Your task to perform on an android device: Open notification settings Image 0: 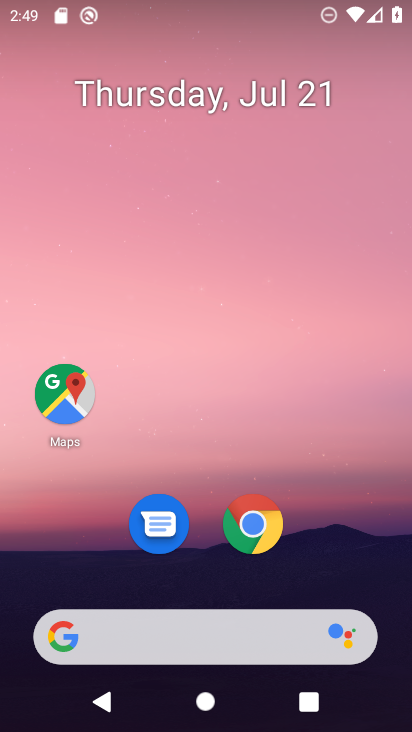
Step 0: drag from (165, 617) to (260, 8)
Your task to perform on an android device: Open notification settings Image 1: 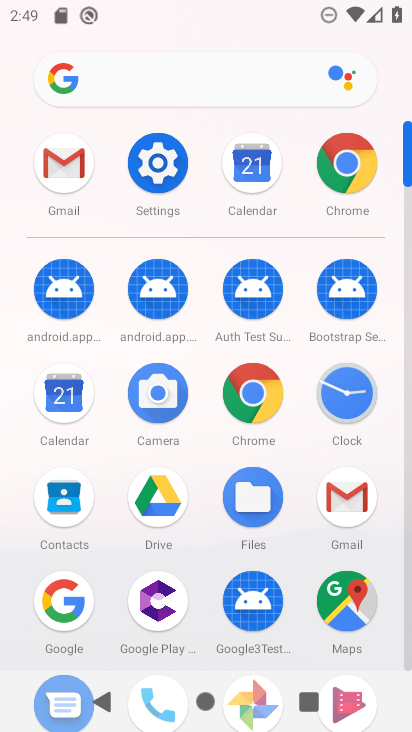
Step 1: click (157, 170)
Your task to perform on an android device: Open notification settings Image 2: 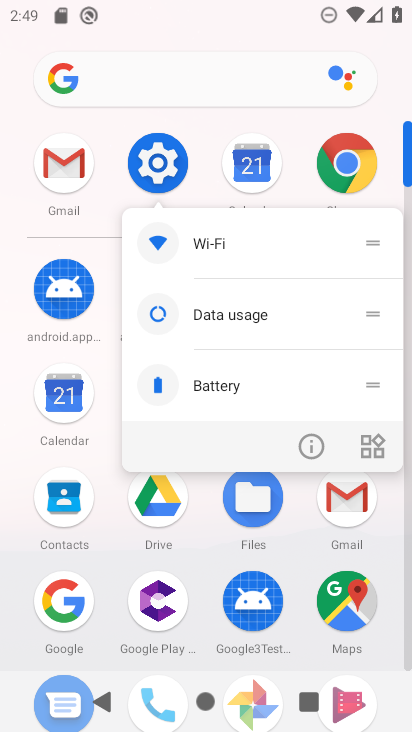
Step 2: click (166, 155)
Your task to perform on an android device: Open notification settings Image 3: 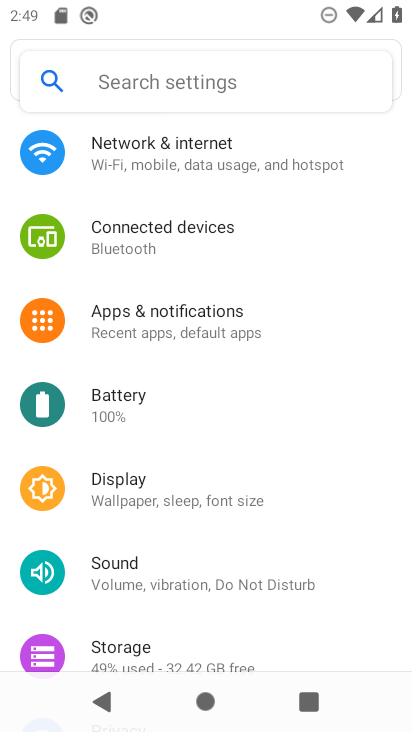
Step 3: click (172, 315)
Your task to perform on an android device: Open notification settings Image 4: 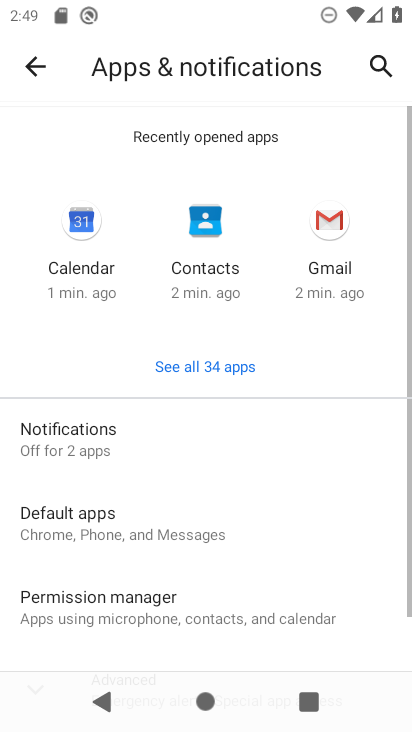
Step 4: click (109, 441)
Your task to perform on an android device: Open notification settings Image 5: 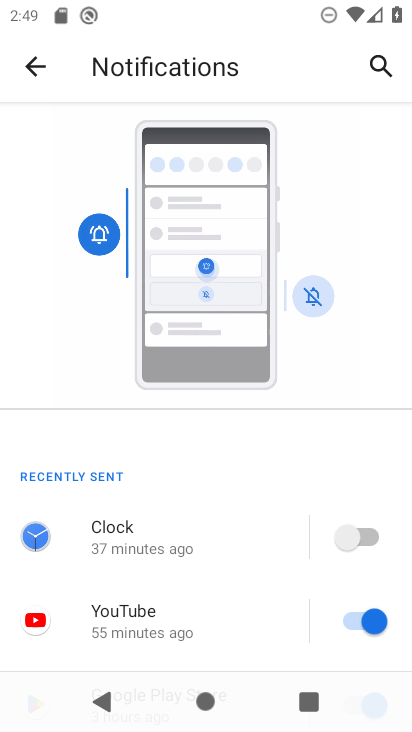
Step 5: task complete